Your task to perform on an android device: open app "Google Drive" Image 0: 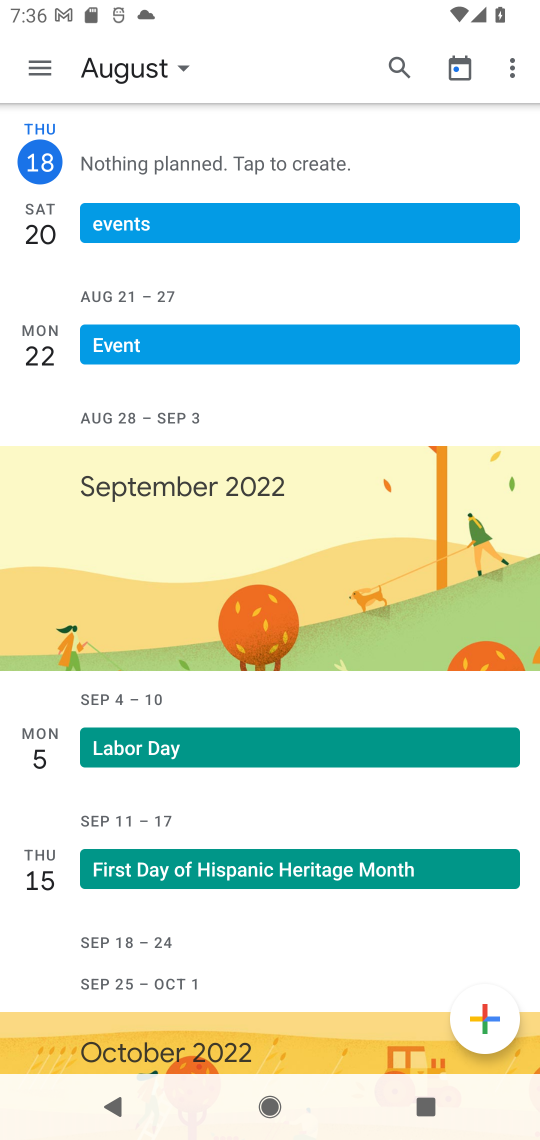
Step 0: press home button
Your task to perform on an android device: open app "Google Drive" Image 1: 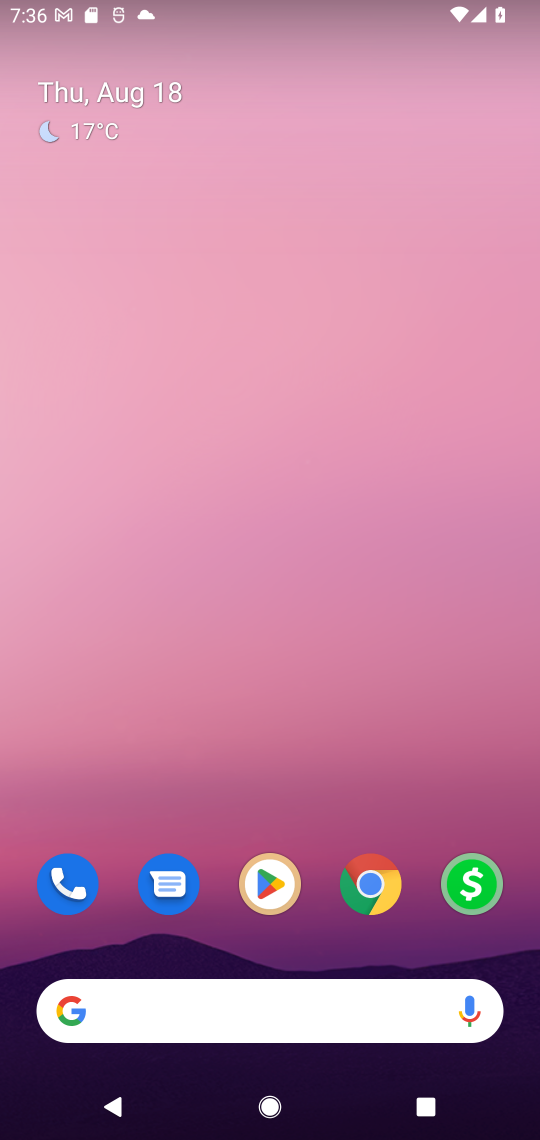
Step 1: drag from (245, 1009) to (367, 244)
Your task to perform on an android device: open app "Google Drive" Image 2: 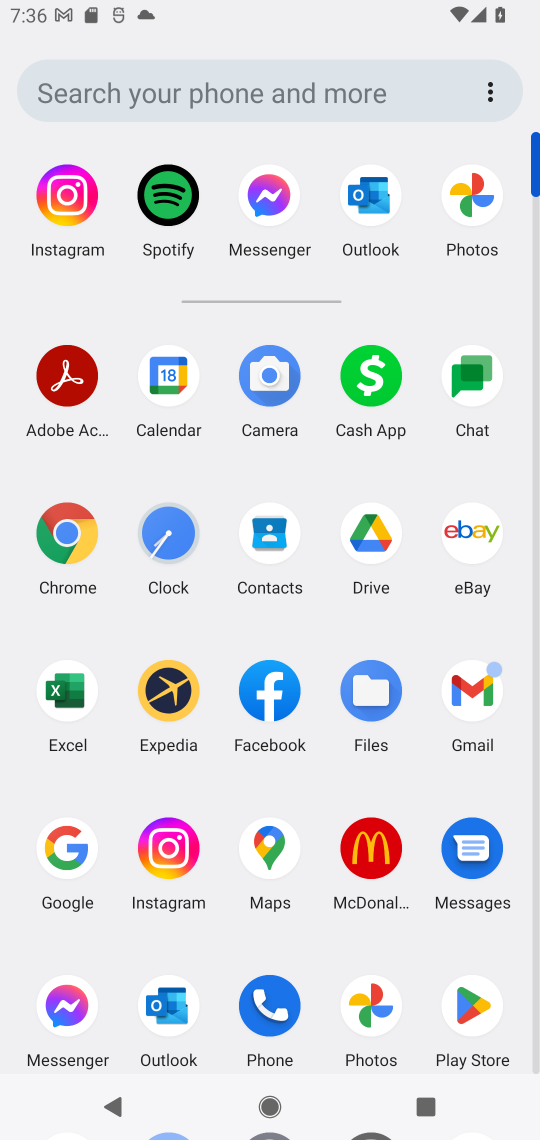
Step 2: click (475, 1004)
Your task to perform on an android device: open app "Google Drive" Image 3: 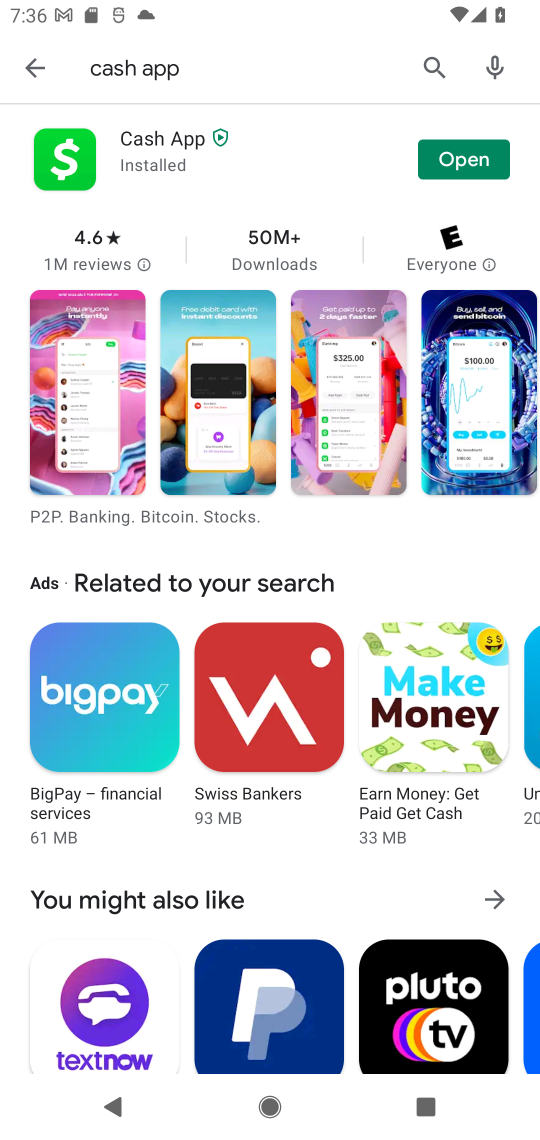
Step 3: press back button
Your task to perform on an android device: open app "Google Drive" Image 4: 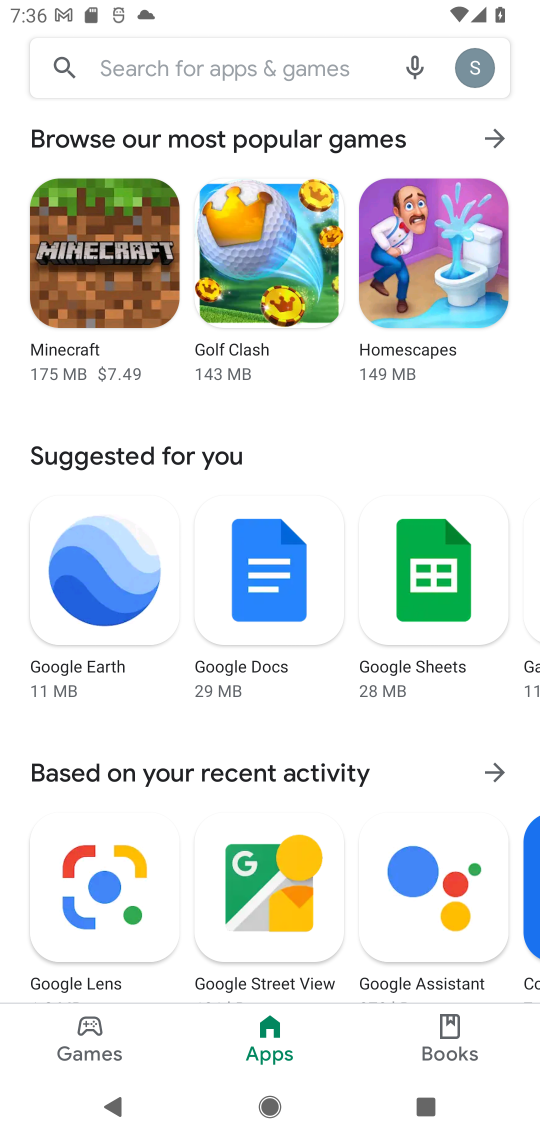
Step 4: click (297, 80)
Your task to perform on an android device: open app "Google Drive" Image 5: 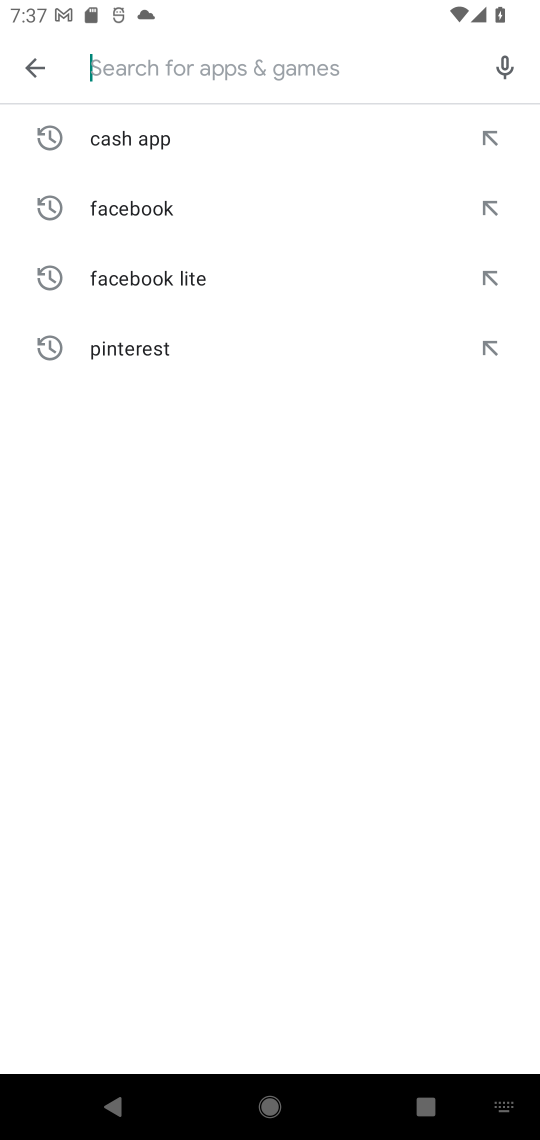
Step 5: type "Google Drive"
Your task to perform on an android device: open app "Google Drive" Image 6: 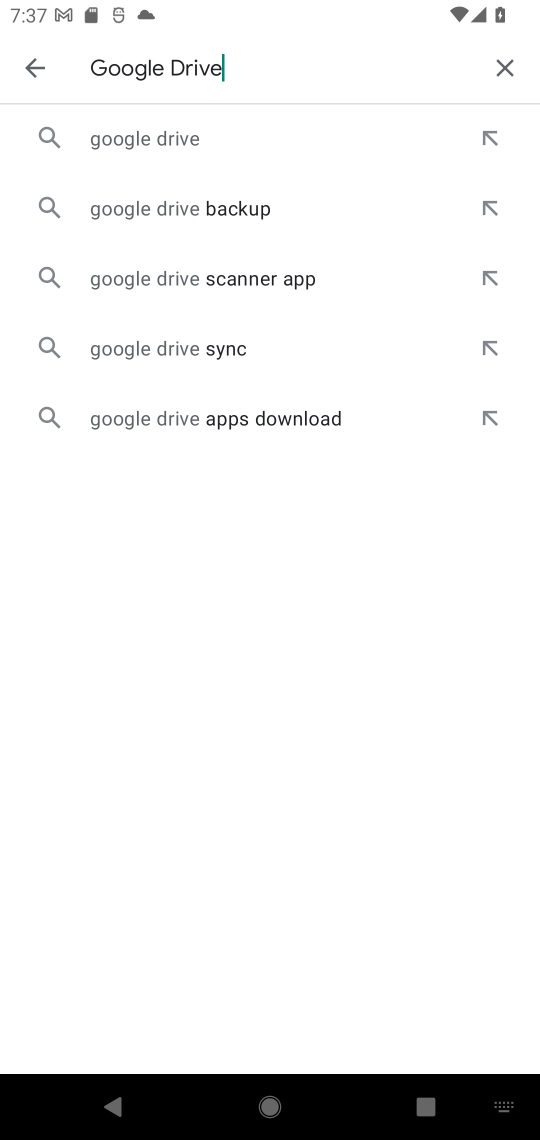
Step 6: click (164, 138)
Your task to perform on an android device: open app "Google Drive" Image 7: 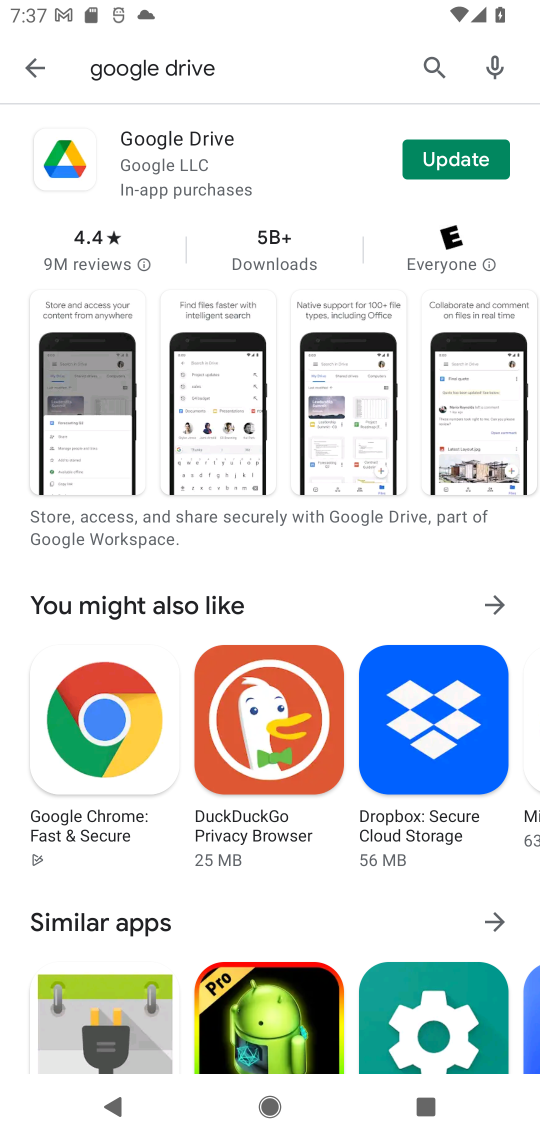
Step 7: click (164, 138)
Your task to perform on an android device: open app "Google Drive" Image 8: 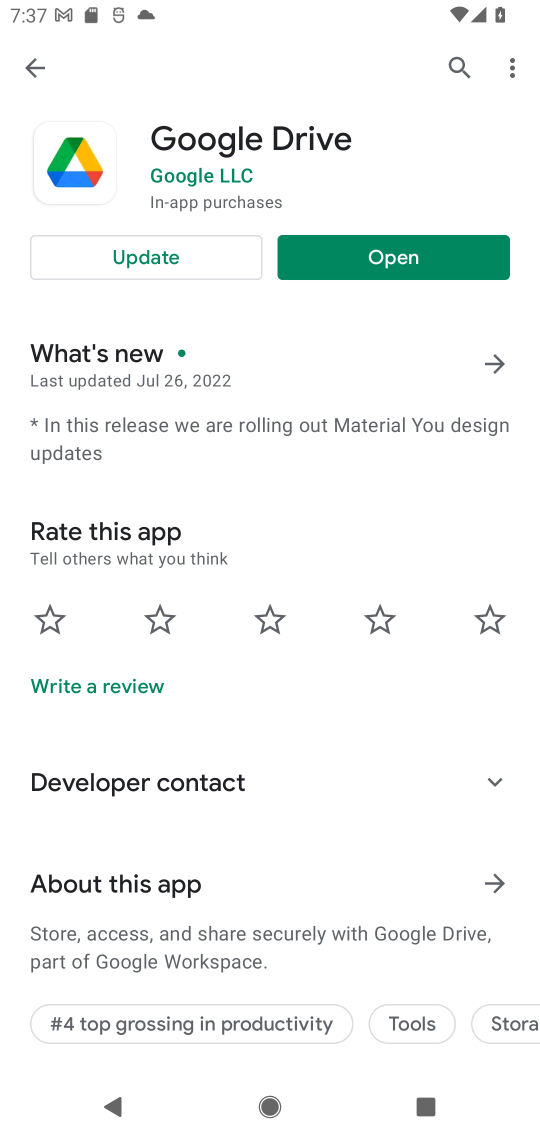
Step 8: click (368, 260)
Your task to perform on an android device: open app "Google Drive" Image 9: 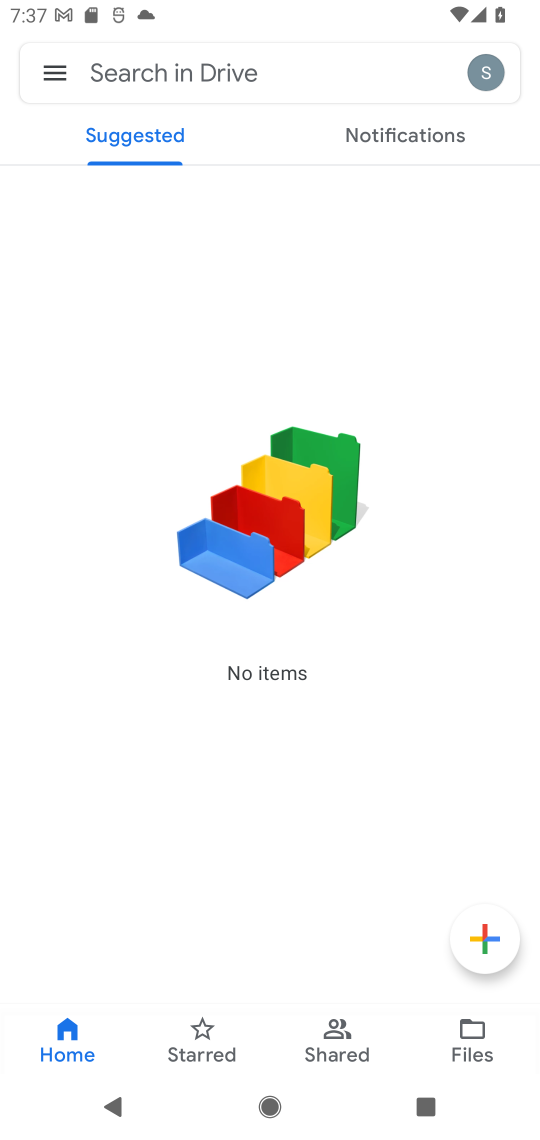
Step 9: task complete